Your task to perform on an android device: check data usage Image 0: 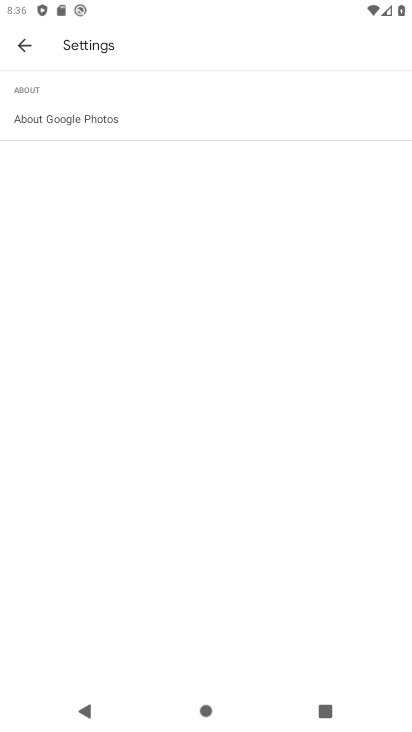
Step 0: press home button
Your task to perform on an android device: check data usage Image 1: 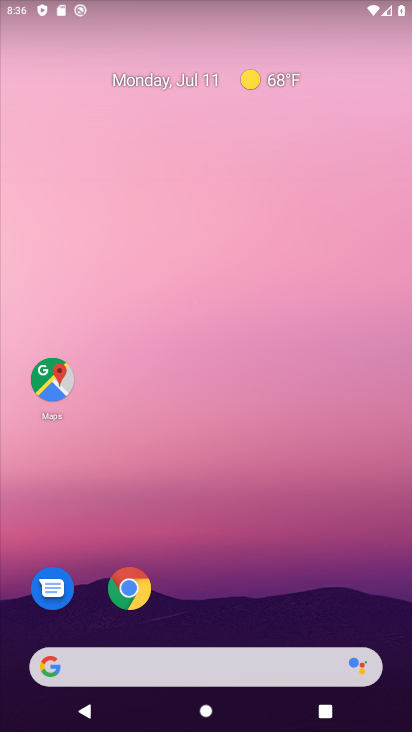
Step 1: drag from (206, 626) to (210, 19)
Your task to perform on an android device: check data usage Image 2: 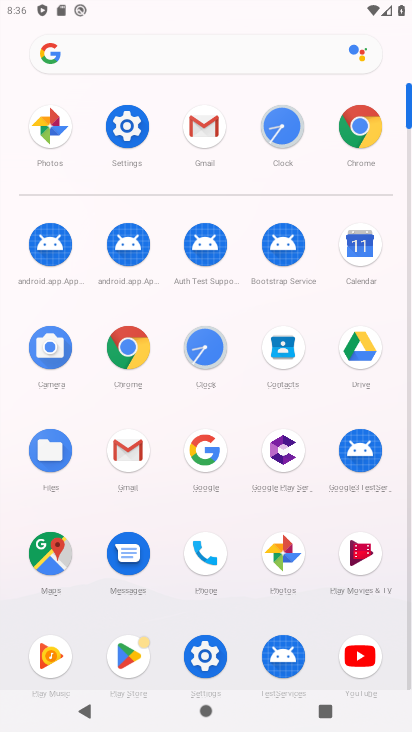
Step 2: click (126, 143)
Your task to perform on an android device: check data usage Image 3: 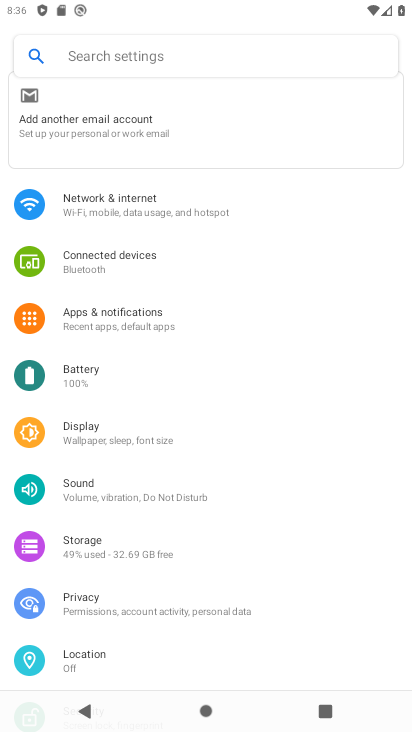
Step 3: click (137, 210)
Your task to perform on an android device: check data usage Image 4: 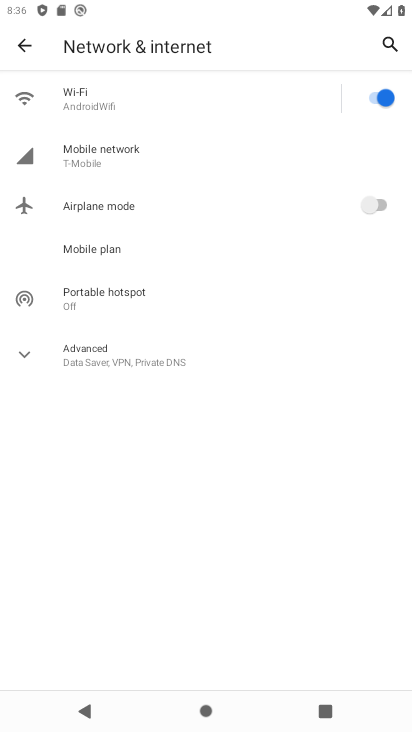
Step 4: click (81, 147)
Your task to perform on an android device: check data usage Image 5: 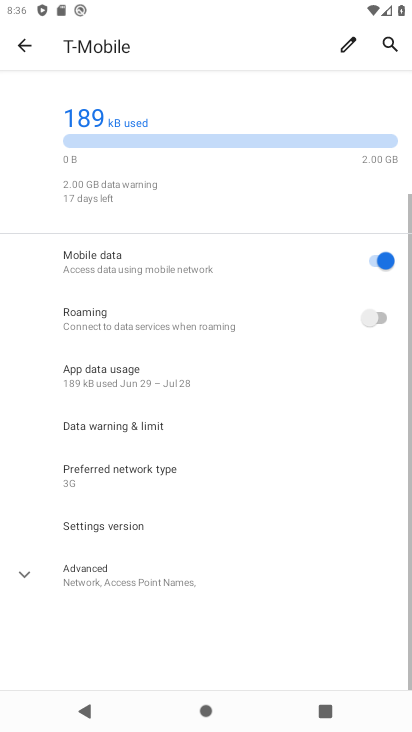
Step 5: task complete